Your task to perform on an android device: turn off picture-in-picture Image 0: 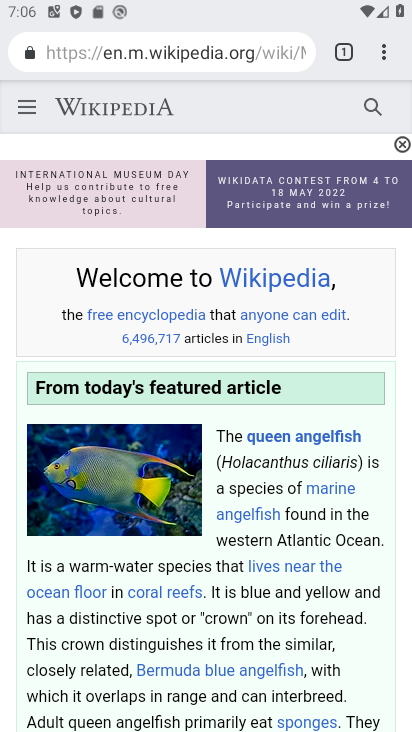
Step 0: press home button
Your task to perform on an android device: turn off picture-in-picture Image 1: 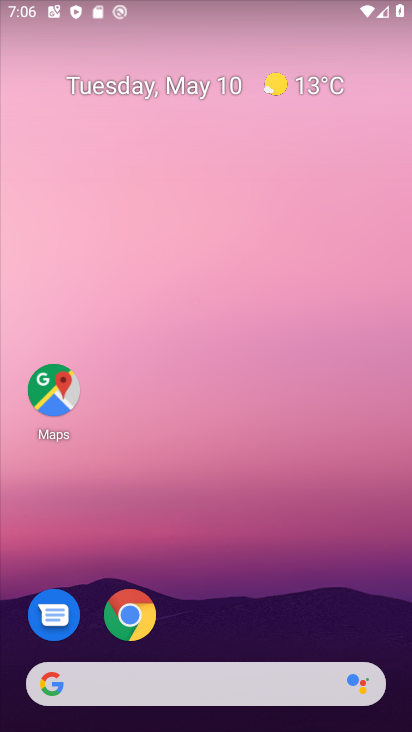
Step 1: click (115, 619)
Your task to perform on an android device: turn off picture-in-picture Image 2: 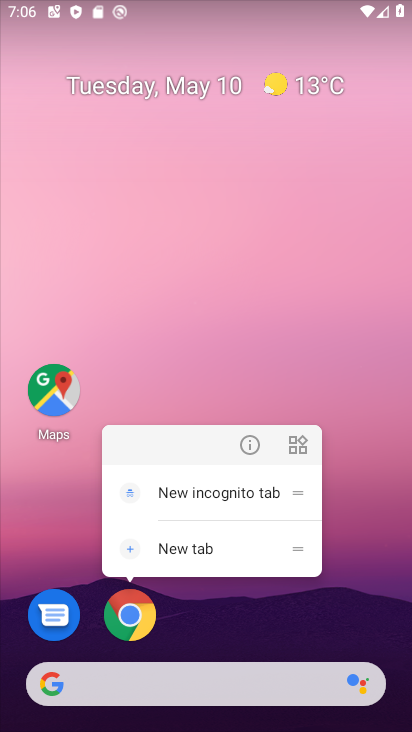
Step 2: click (249, 439)
Your task to perform on an android device: turn off picture-in-picture Image 3: 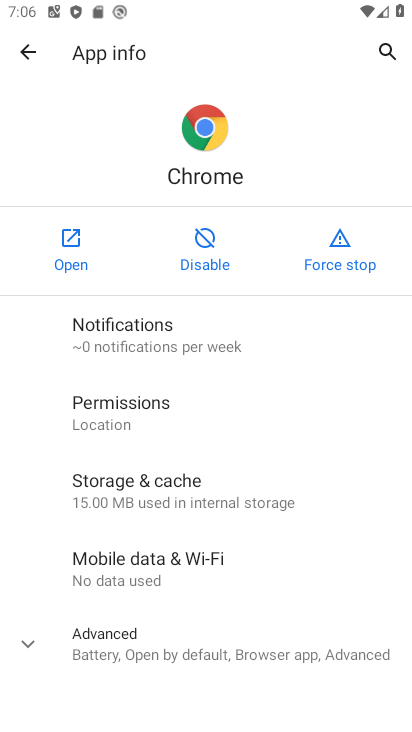
Step 3: drag from (264, 617) to (161, 252)
Your task to perform on an android device: turn off picture-in-picture Image 4: 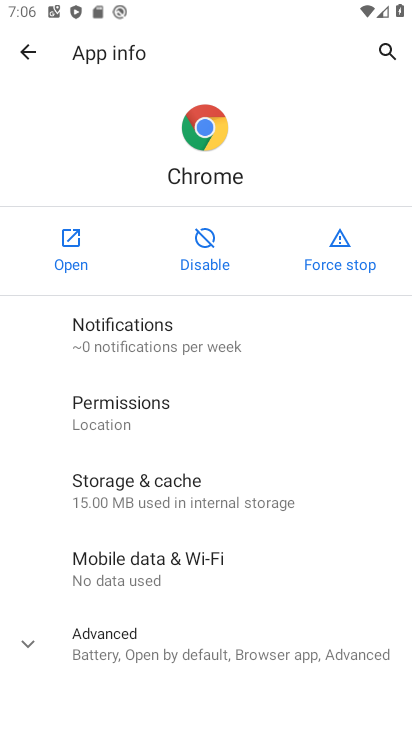
Step 4: click (154, 669)
Your task to perform on an android device: turn off picture-in-picture Image 5: 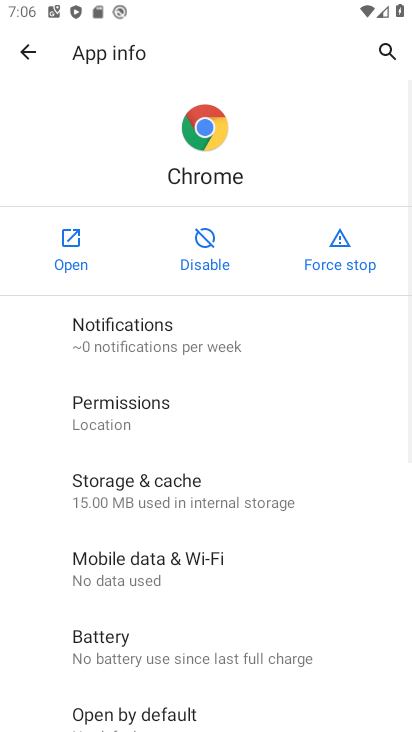
Step 5: drag from (154, 668) to (143, 344)
Your task to perform on an android device: turn off picture-in-picture Image 6: 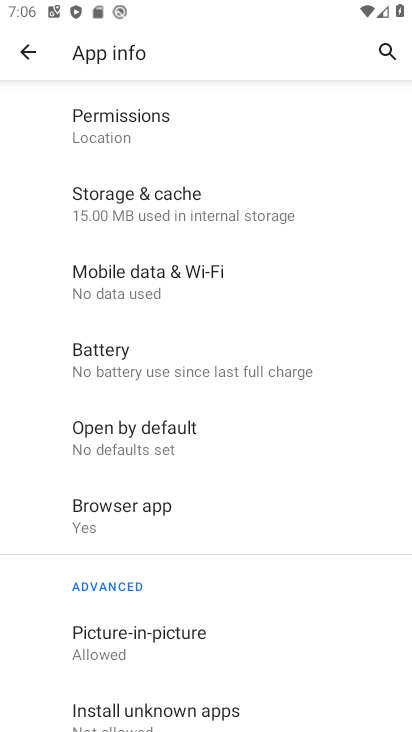
Step 6: click (172, 634)
Your task to perform on an android device: turn off picture-in-picture Image 7: 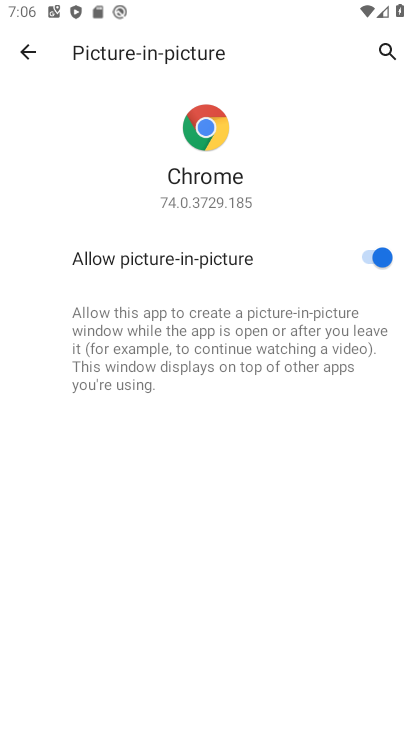
Step 7: click (371, 277)
Your task to perform on an android device: turn off picture-in-picture Image 8: 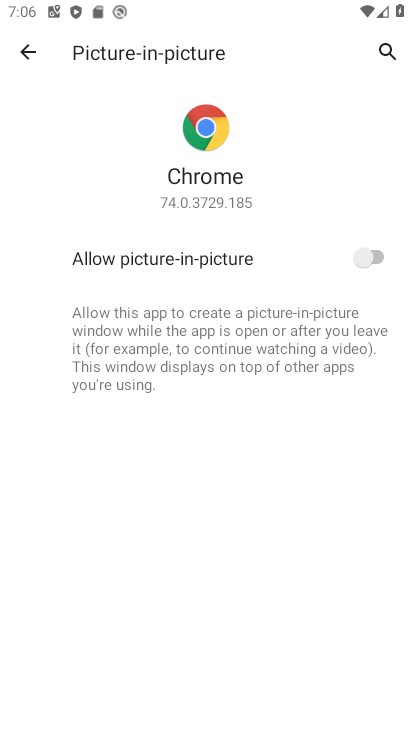
Step 8: task complete